Your task to perform on an android device: change the clock style Image 0: 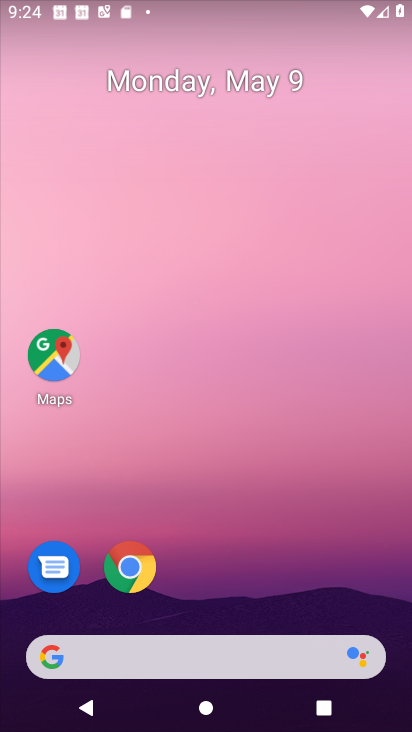
Step 0: click (330, 26)
Your task to perform on an android device: change the clock style Image 1: 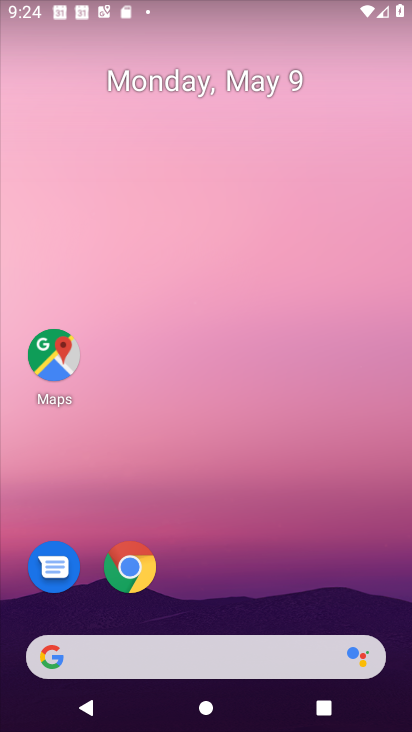
Step 1: drag from (251, 514) to (281, 0)
Your task to perform on an android device: change the clock style Image 2: 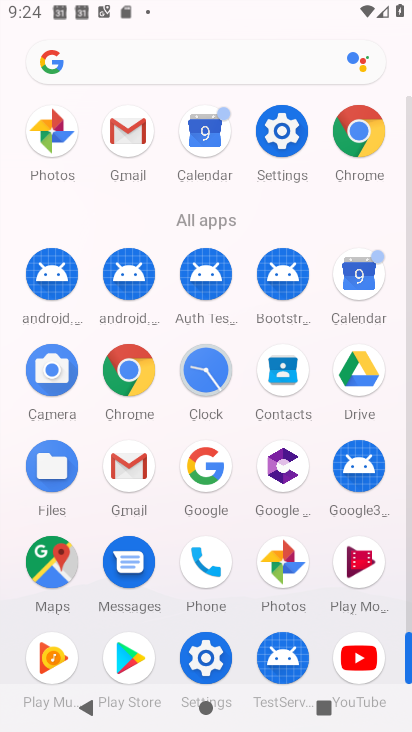
Step 2: click (208, 368)
Your task to perform on an android device: change the clock style Image 3: 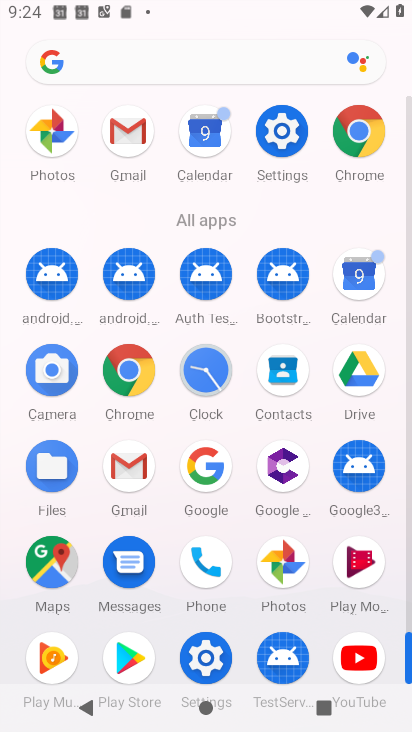
Step 3: click (208, 368)
Your task to perform on an android device: change the clock style Image 4: 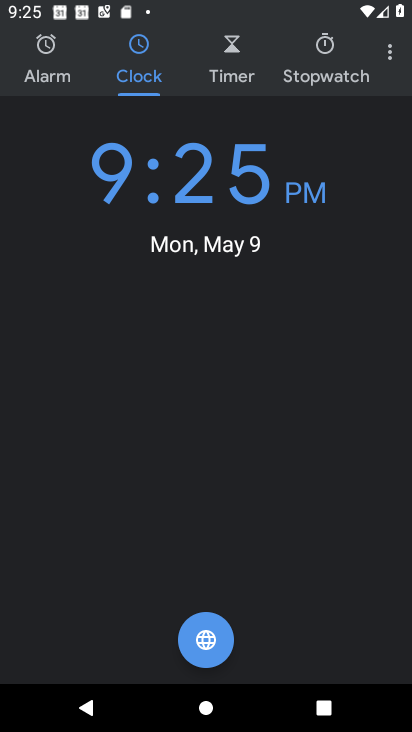
Step 4: click (394, 54)
Your task to perform on an android device: change the clock style Image 5: 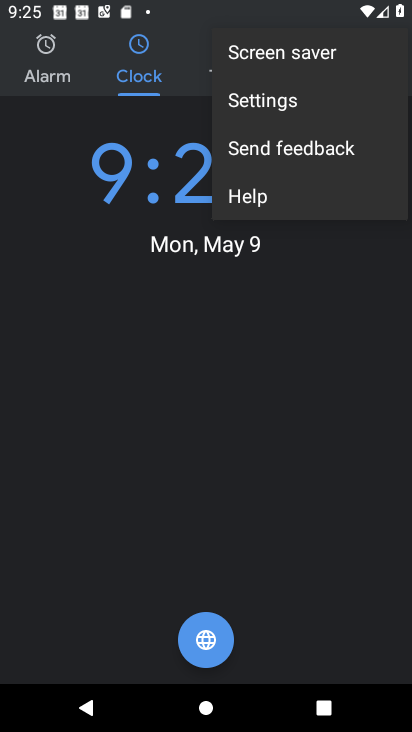
Step 5: click (316, 98)
Your task to perform on an android device: change the clock style Image 6: 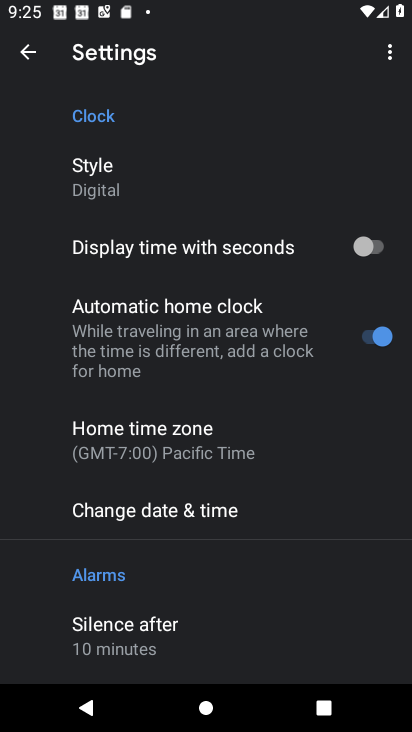
Step 6: click (133, 192)
Your task to perform on an android device: change the clock style Image 7: 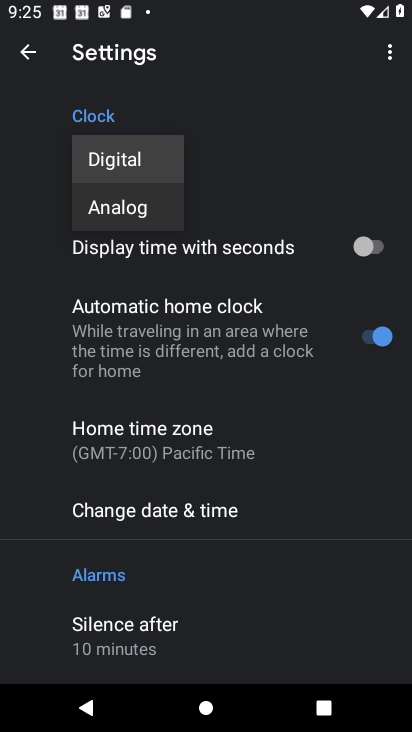
Step 7: click (152, 210)
Your task to perform on an android device: change the clock style Image 8: 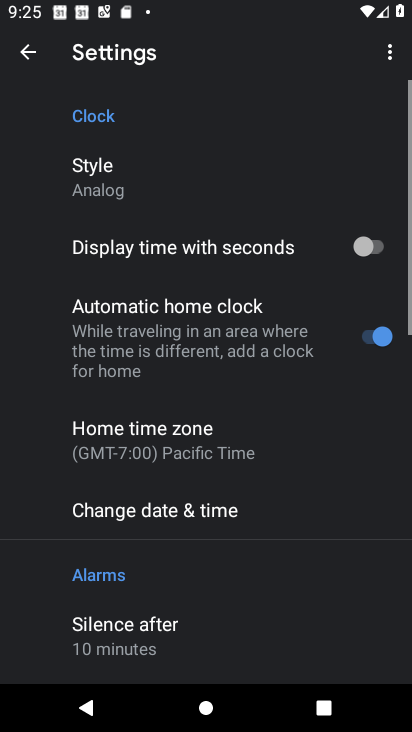
Step 8: task complete